Your task to perform on an android device: manage bookmarks in the chrome app Image 0: 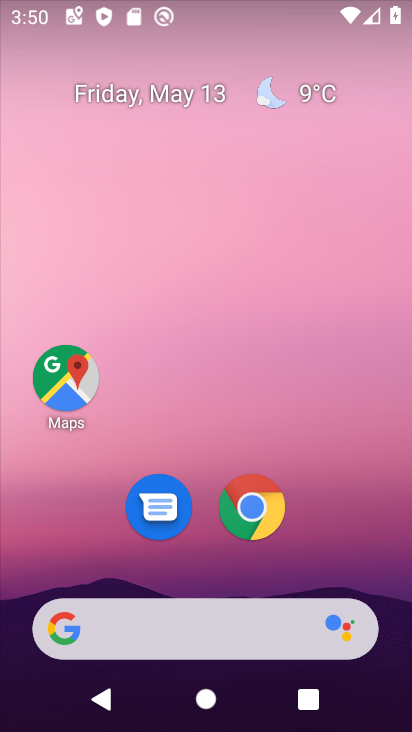
Step 0: drag from (367, 548) to (383, 120)
Your task to perform on an android device: manage bookmarks in the chrome app Image 1: 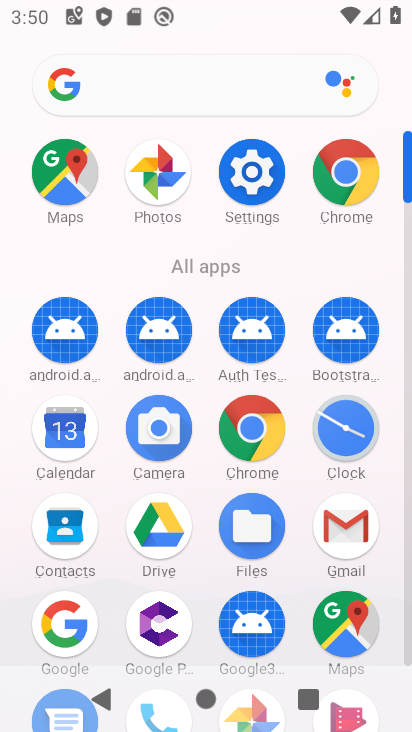
Step 1: click (339, 190)
Your task to perform on an android device: manage bookmarks in the chrome app Image 2: 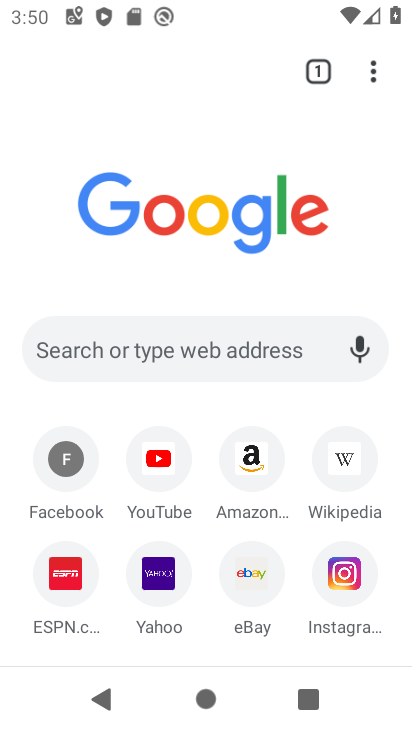
Step 2: task complete